Your task to perform on an android device: Turn on the flashlight Image 0: 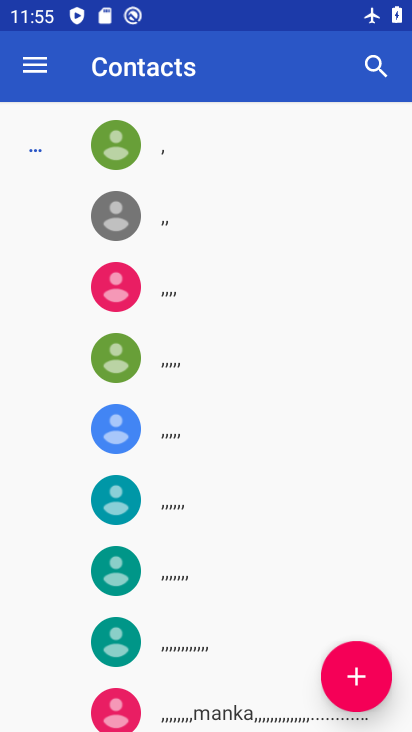
Step 0: press home button
Your task to perform on an android device: Turn on the flashlight Image 1: 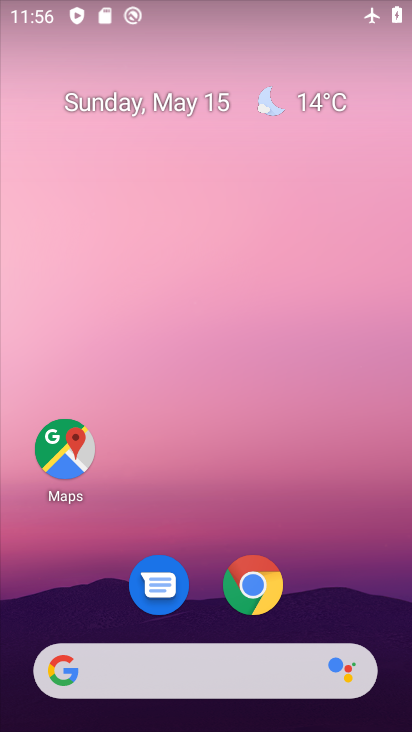
Step 1: drag from (198, 482) to (277, 45)
Your task to perform on an android device: Turn on the flashlight Image 2: 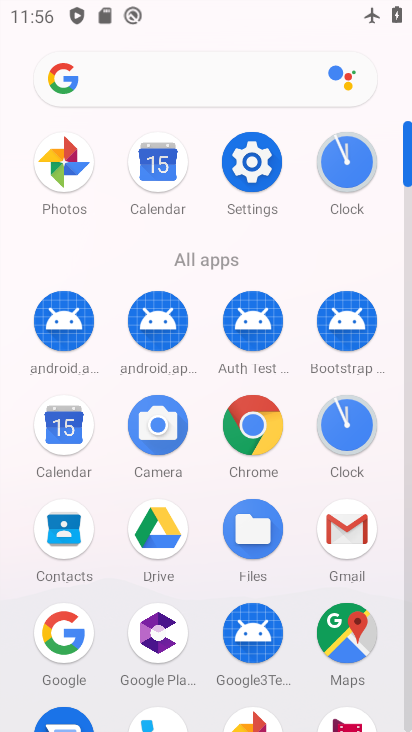
Step 2: click (249, 161)
Your task to perform on an android device: Turn on the flashlight Image 3: 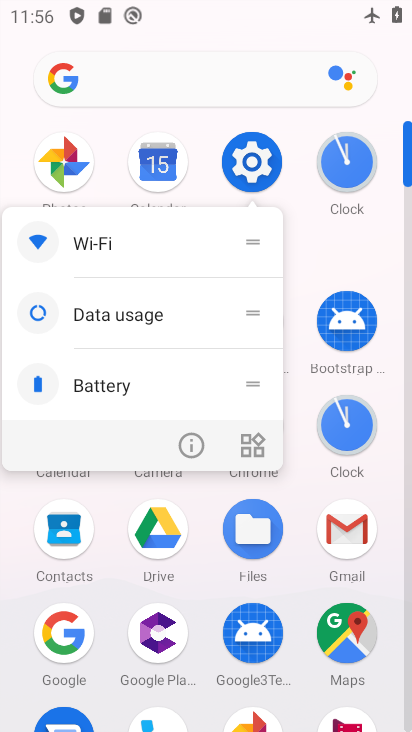
Step 3: click (249, 151)
Your task to perform on an android device: Turn on the flashlight Image 4: 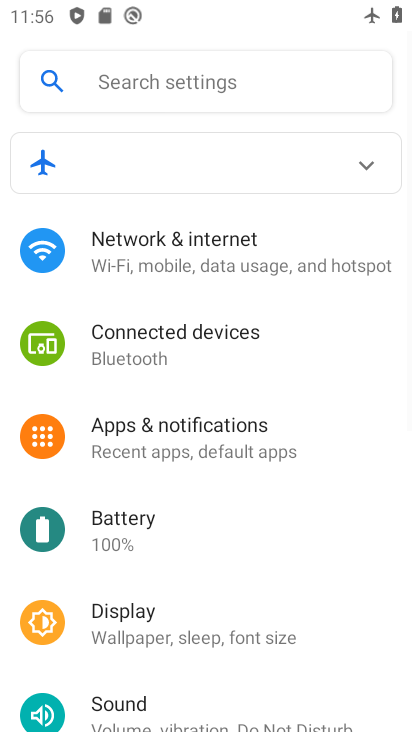
Step 4: click (254, 83)
Your task to perform on an android device: Turn on the flashlight Image 5: 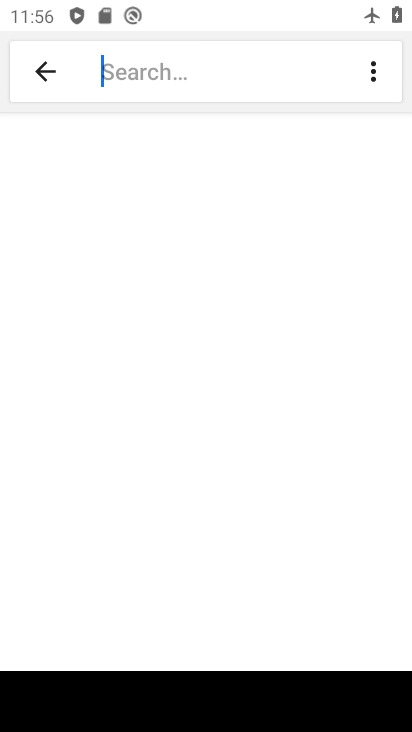
Step 5: type "flashlight"
Your task to perform on an android device: Turn on the flashlight Image 6: 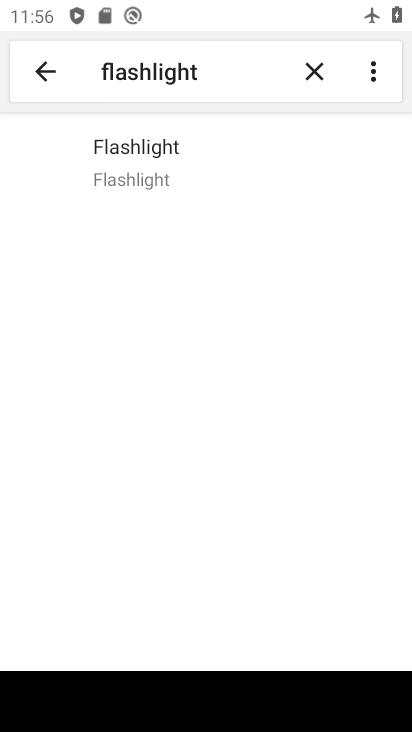
Step 6: click (149, 164)
Your task to perform on an android device: Turn on the flashlight Image 7: 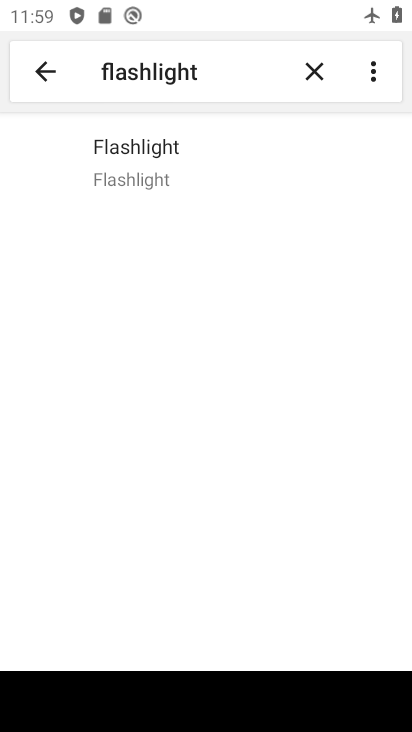
Step 7: click (169, 152)
Your task to perform on an android device: Turn on the flashlight Image 8: 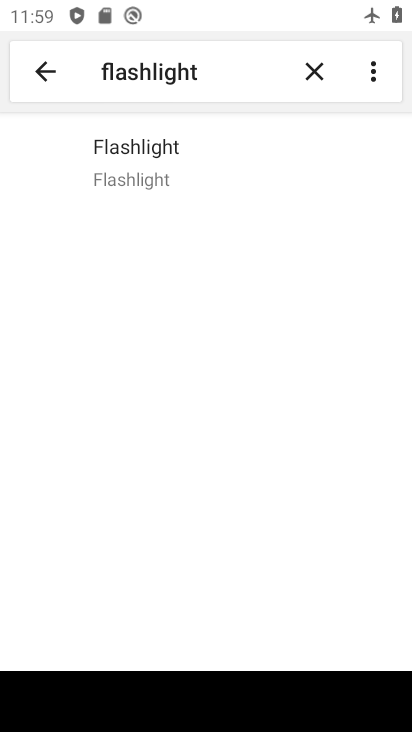
Step 8: task complete